Your task to perform on an android device: toggle sleep mode Image 0: 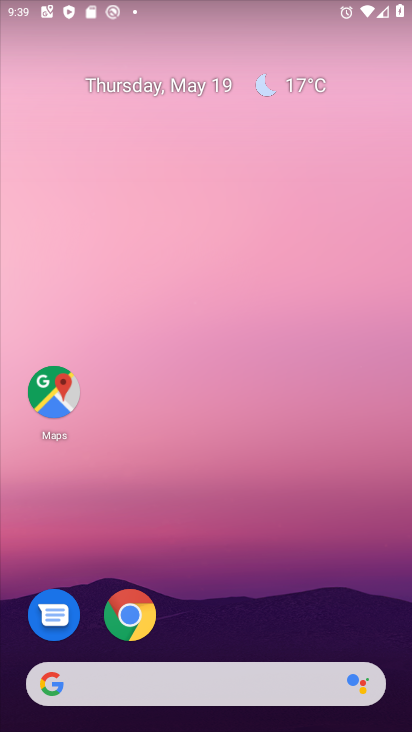
Step 0: press home button
Your task to perform on an android device: toggle sleep mode Image 1: 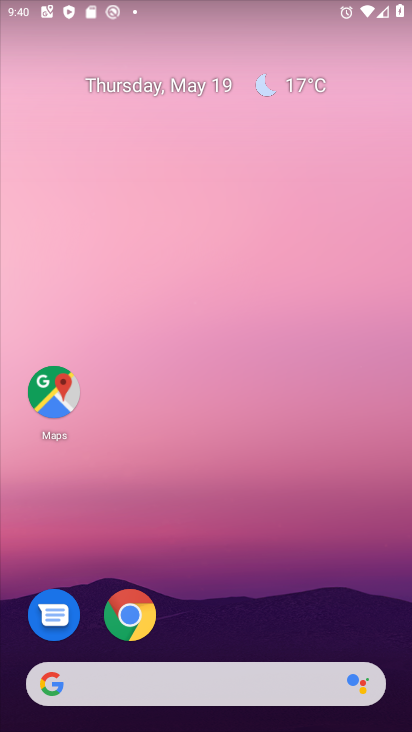
Step 1: drag from (341, 624) to (330, 111)
Your task to perform on an android device: toggle sleep mode Image 2: 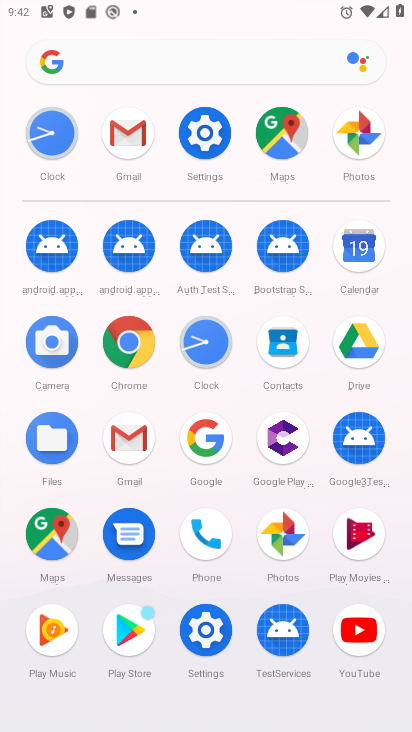
Step 2: click (175, 131)
Your task to perform on an android device: toggle sleep mode Image 3: 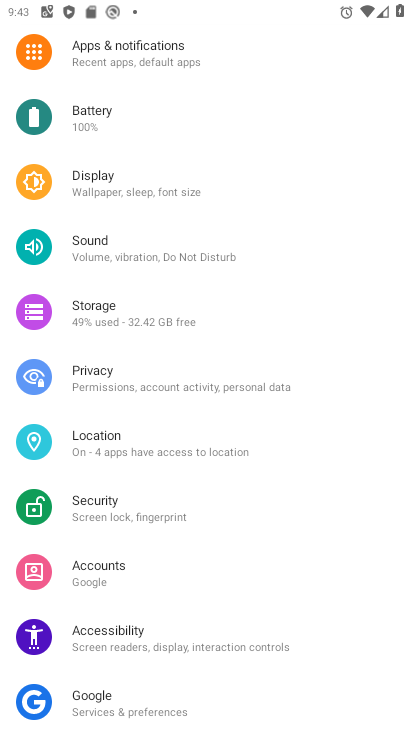
Step 3: click (131, 203)
Your task to perform on an android device: toggle sleep mode Image 4: 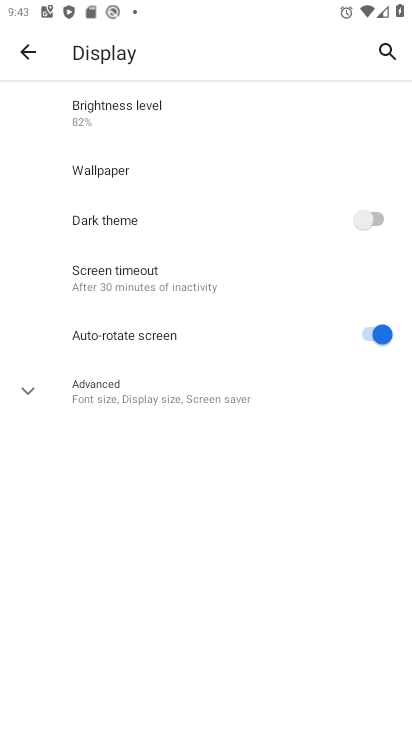
Step 4: task complete